Your task to perform on an android device: Open my contact list Image 0: 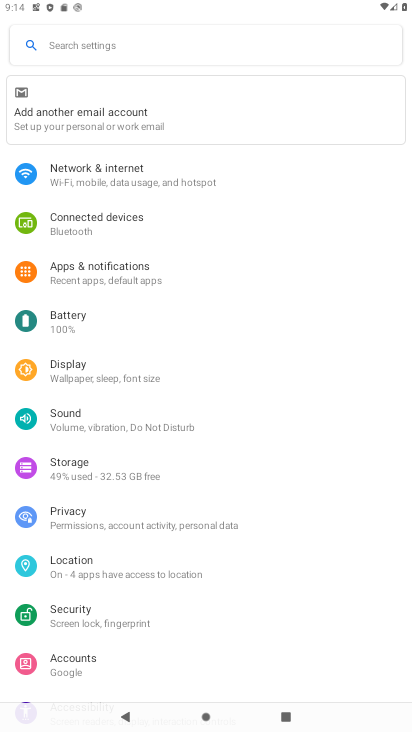
Step 0: press home button
Your task to perform on an android device: Open my contact list Image 1: 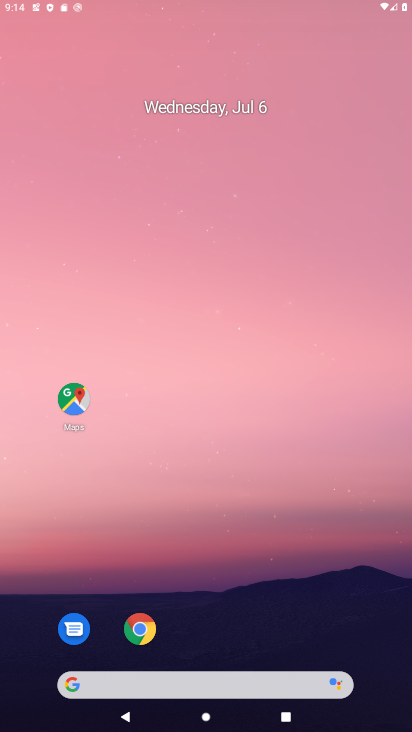
Step 1: drag from (229, 636) to (225, 121)
Your task to perform on an android device: Open my contact list Image 2: 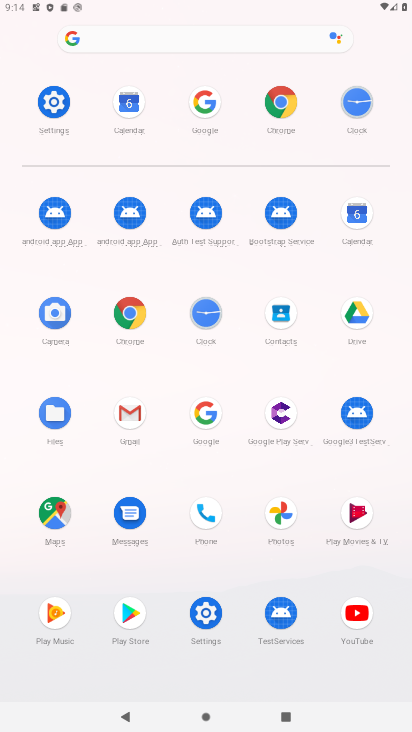
Step 2: click (277, 313)
Your task to perform on an android device: Open my contact list Image 3: 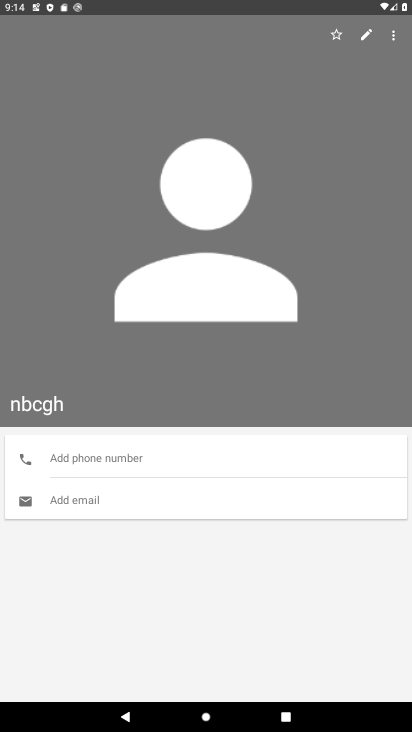
Step 3: task complete